Your task to perform on an android device: change notifications settings Image 0: 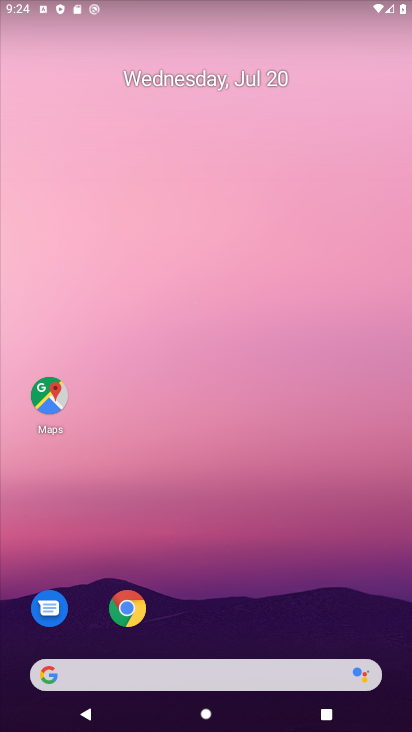
Step 0: drag from (236, 604) to (274, 134)
Your task to perform on an android device: change notifications settings Image 1: 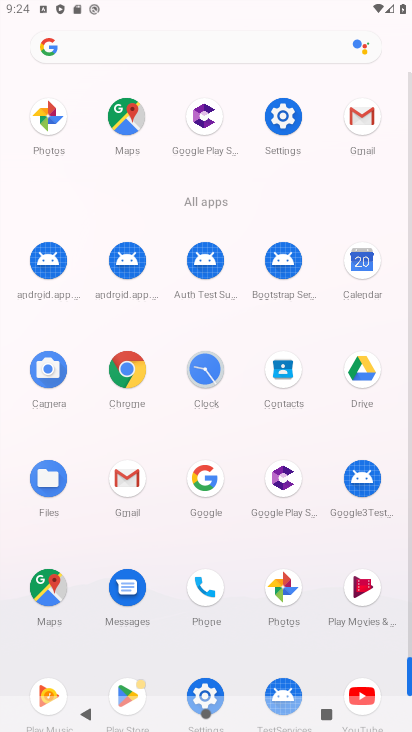
Step 1: click (285, 134)
Your task to perform on an android device: change notifications settings Image 2: 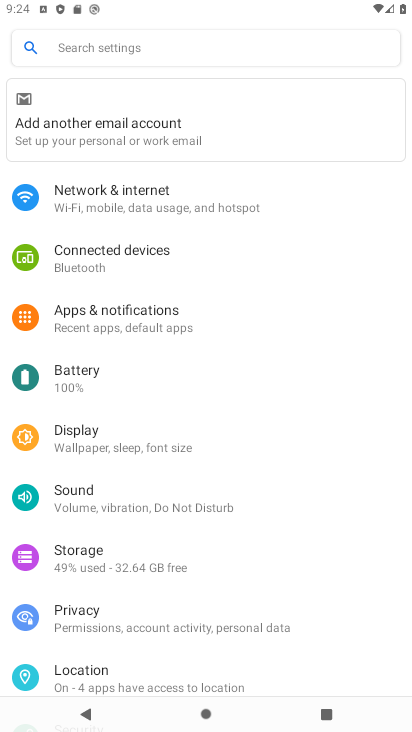
Step 2: click (145, 317)
Your task to perform on an android device: change notifications settings Image 3: 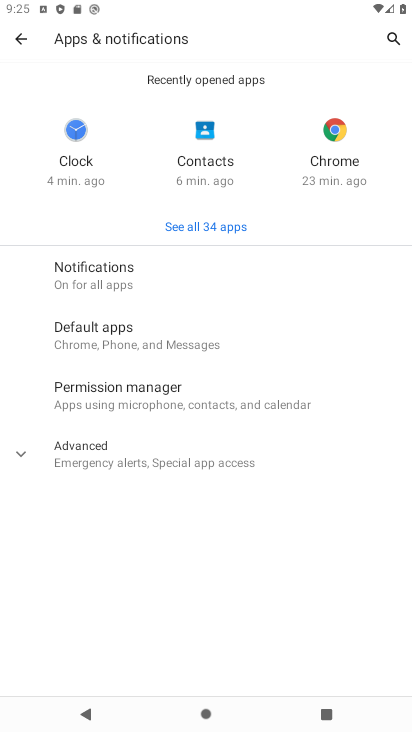
Step 3: click (180, 281)
Your task to perform on an android device: change notifications settings Image 4: 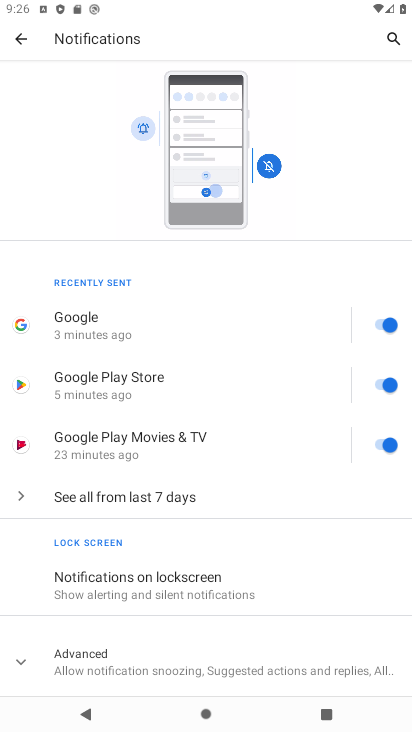
Step 4: click (382, 329)
Your task to perform on an android device: change notifications settings Image 5: 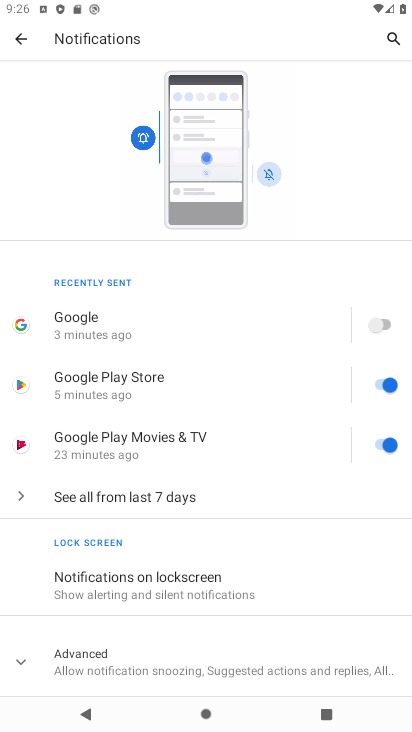
Step 5: task complete